Your task to perform on an android device: What's on my calendar tomorrow? Image 0: 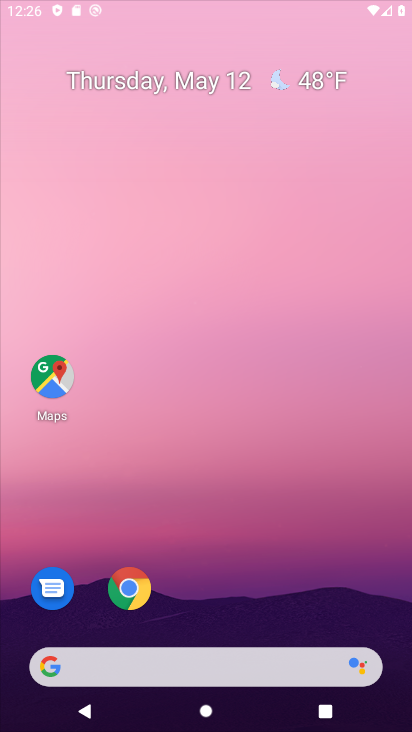
Step 0: drag from (268, 653) to (154, 44)
Your task to perform on an android device: What's on my calendar tomorrow? Image 1: 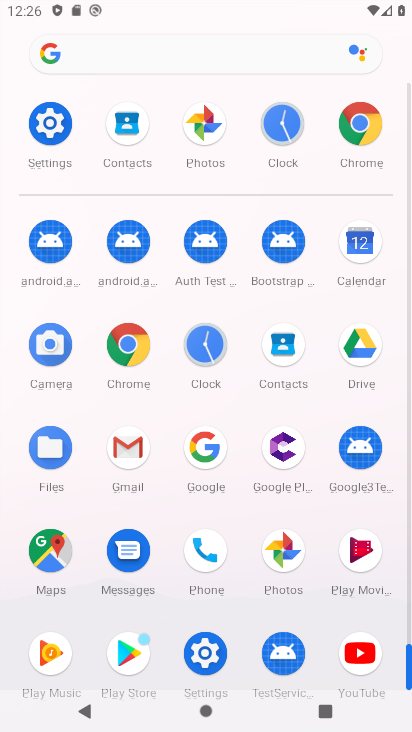
Step 1: click (353, 245)
Your task to perform on an android device: What's on my calendar tomorrow? Image 2: 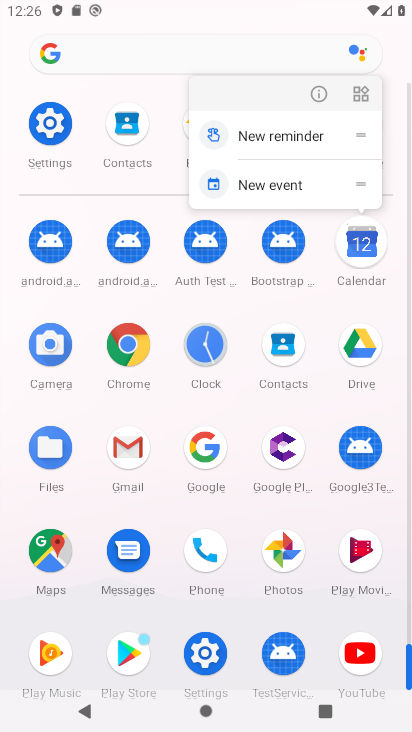
Step 2: click (351, 254)
Your task to perform on an android device: What's on my calendar tomorrow? Image 3: 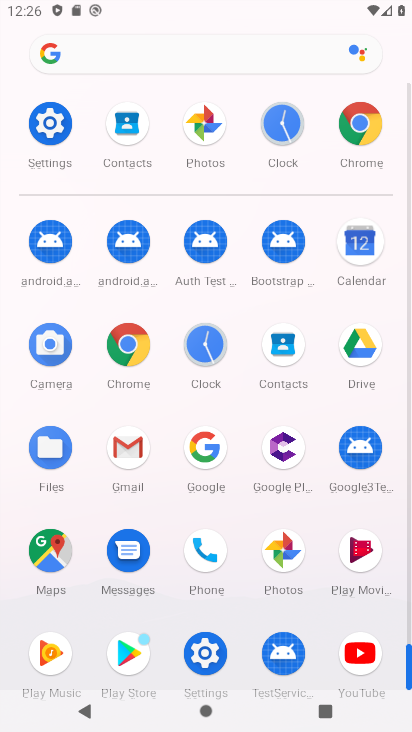
Step 3: click (368, 247)
Your task to perform on an android device: What's on my calendar tomorrow? Image 4: 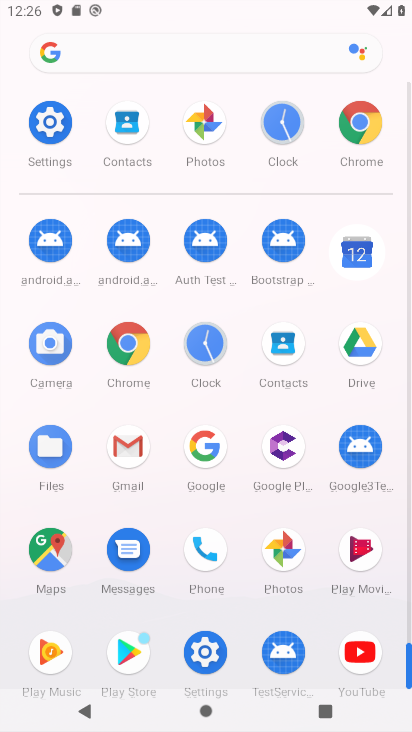
Step 4: click (368, 247)
Your task to perform on an android device: What's on my calendar tomorrow? Image 5: 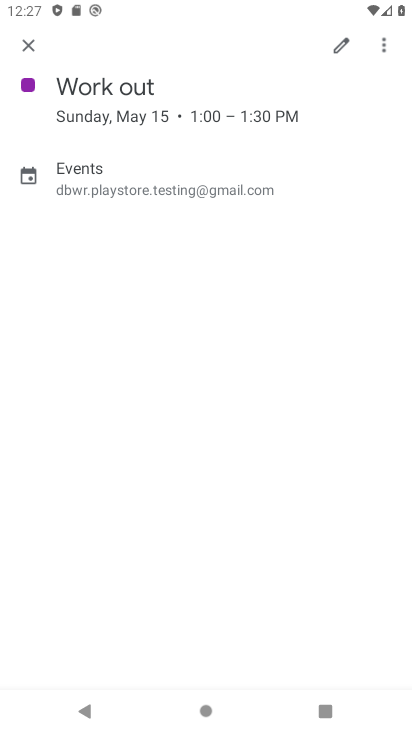
Step 5: task complete